Your task to perform on an android device: Open accessibility settings Image 0: 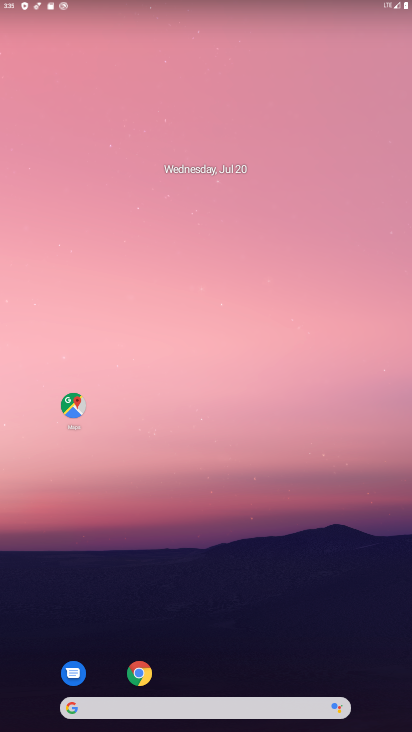
Step 0: drag from (246, 532) to (235, 143)
Your task to perform on an android device: Open accessibility settings Image 1: 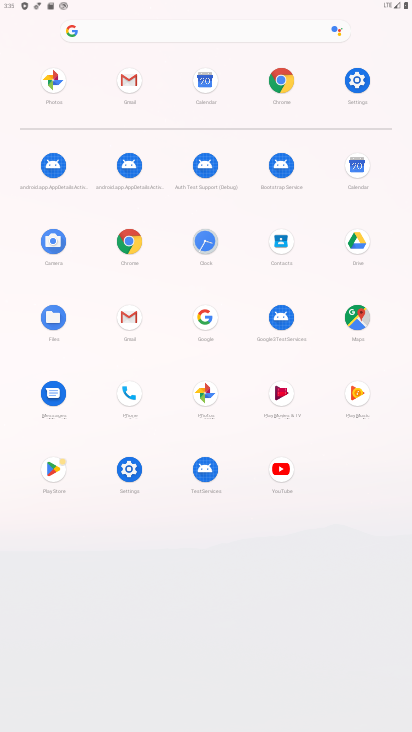
Step 1: click (134, 467)
Your task to perform on an android device: Open accessibility settings Image 2: 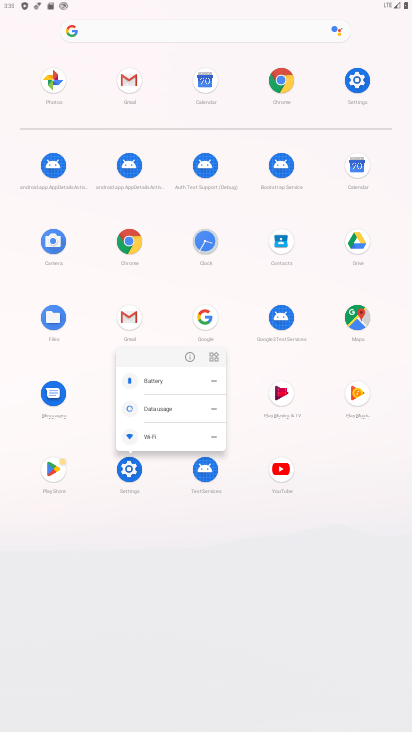
Step 2: click (125, 473)
Your task to perform on an android device: Open accessibility settings Image 3: 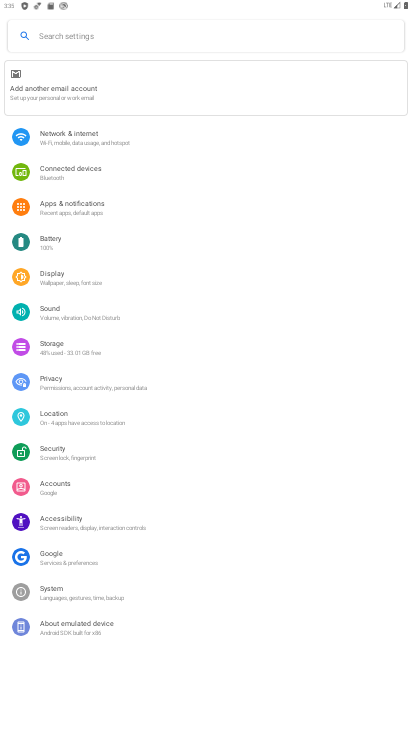
Step 3: click (52, 517)
Your task to perform on an android device: Open accessibility settings Image 4: 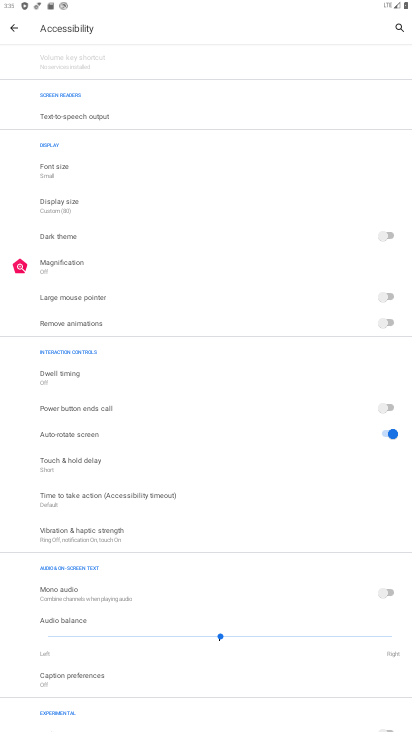
Step 4: task complete